Your task to perform on an android device: Go to Google Image 0: 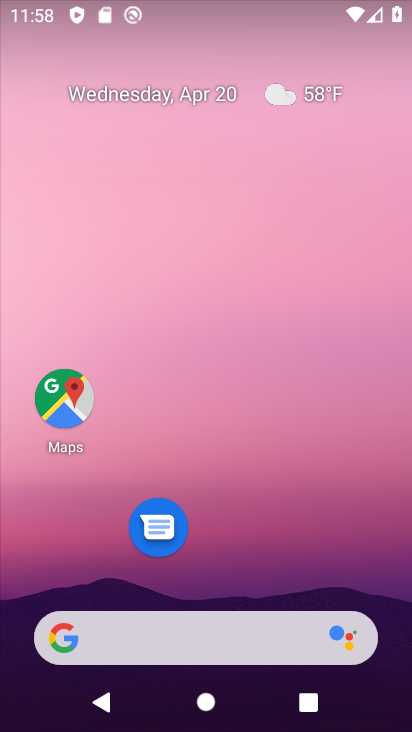
Step 0: drag from (220, 719) to (223, 98)
Your task to perform on an android device: Go to Google Image 1: 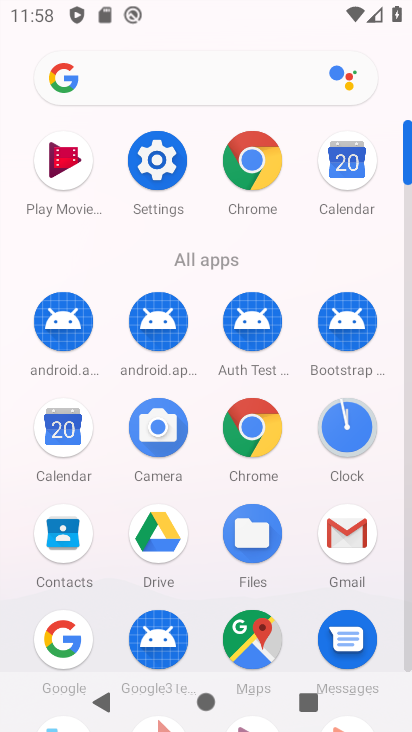
Step 1: click (63, 638)
Your task to perform on an android device: Go to Google Image 2: 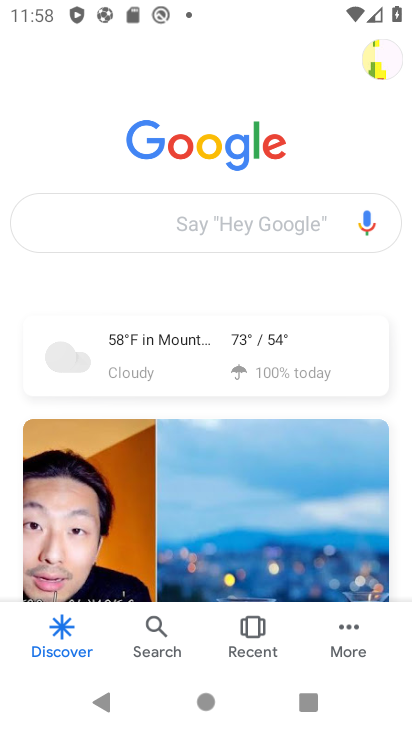
Step 2: task complete